Your task to perform on an android device: When is my next appointment? Image 0: 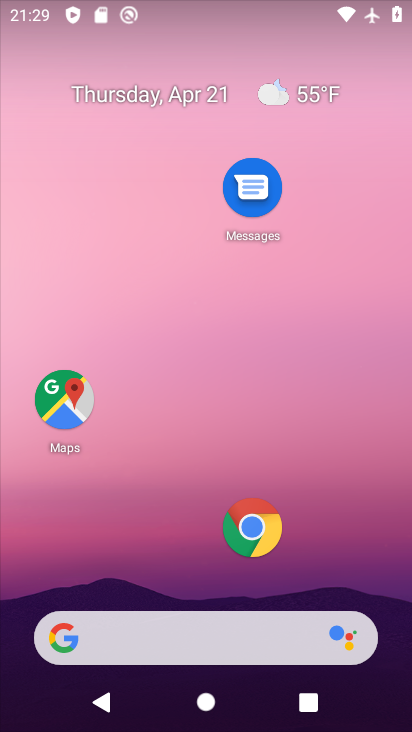
Step 0: drag from (150, 594) to (257, 62)
Your task to perform on an android device: When is my next appointment? Image 1: 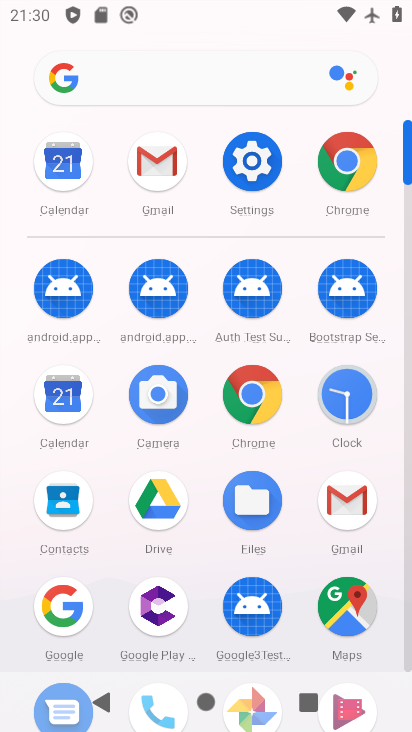
Step 1: click (58, 401)
Your task to perform on an android device: When is my next appointment? Image 2: 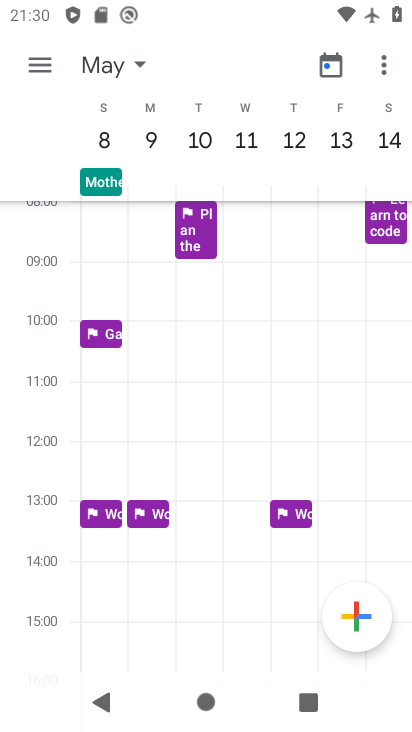
Step 2: click (116, 64)
Your task to perform on an android device: When is my next appointment? Image 3: 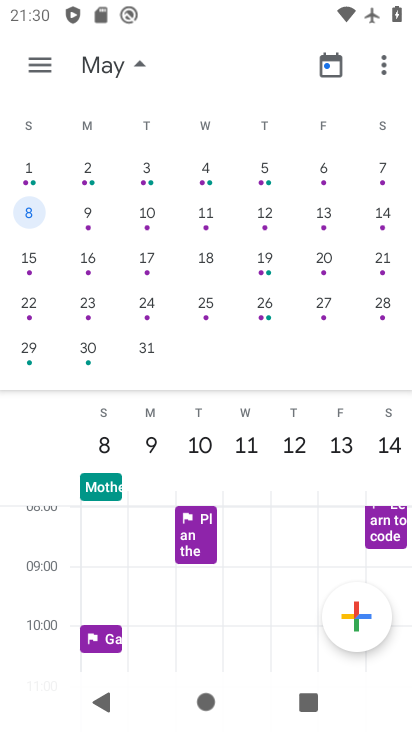
Step 3: drag from (30, 264) to (381, 264)
Your task to perform on an android device: When is my next appointment? Image 4: 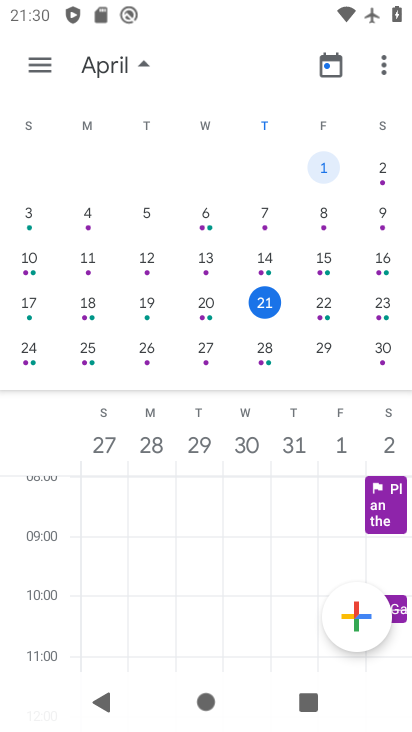
Step 4: click (44, 68)
Your task to perform on an android device: When is my next appointment? Image 5: 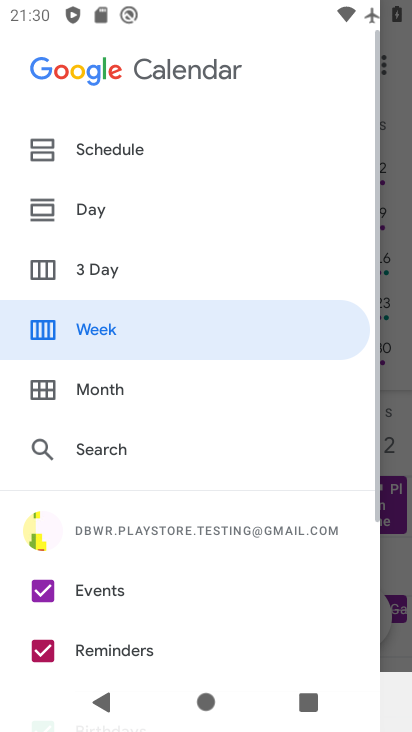
Step 5: click (98, 147)
Your task to perform on an android device: When is my next appointment? Image 6: 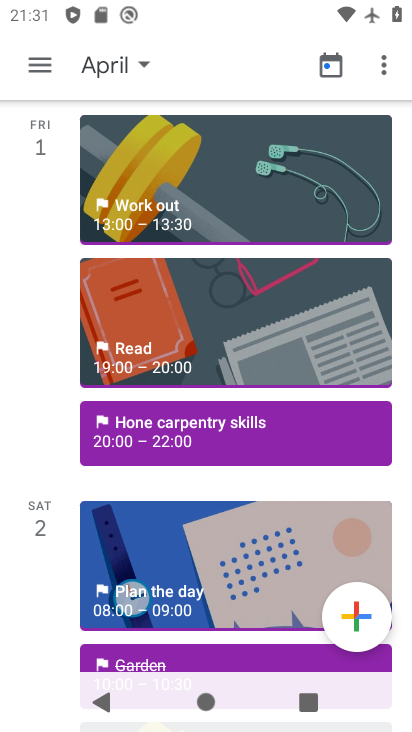
Step 6: click (222, 430)
Your task to perform on an android device: When is my next appointment? Image 7: 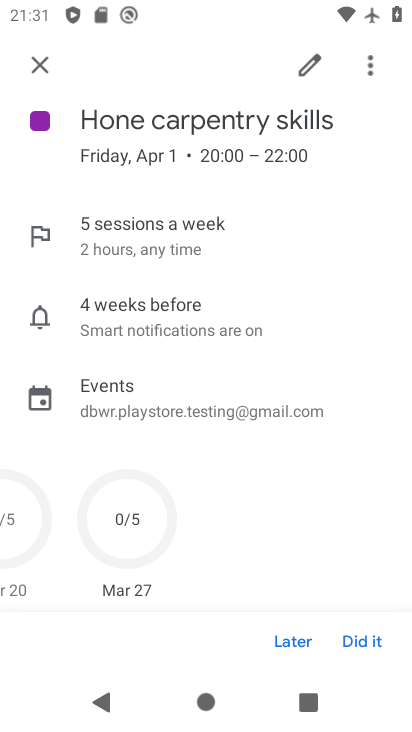
Step 7: task complete